Your task to perform on an android device: add a contact in the contacts app Image 0: 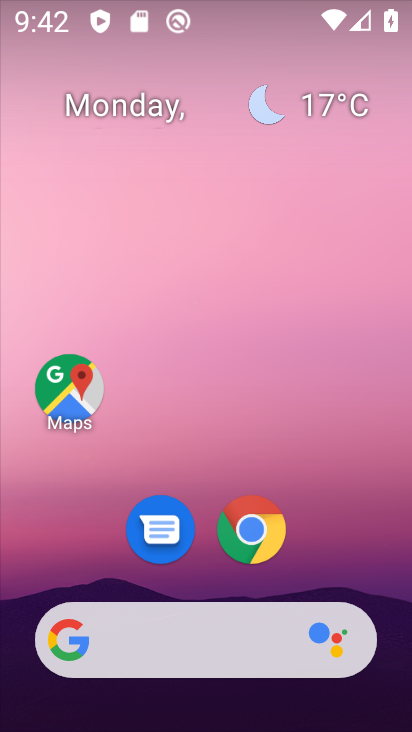
Step 0: drag from (361, 550) to (264, 9)
Your task to perform on an android device: add a contact in the contacts app Image 1: 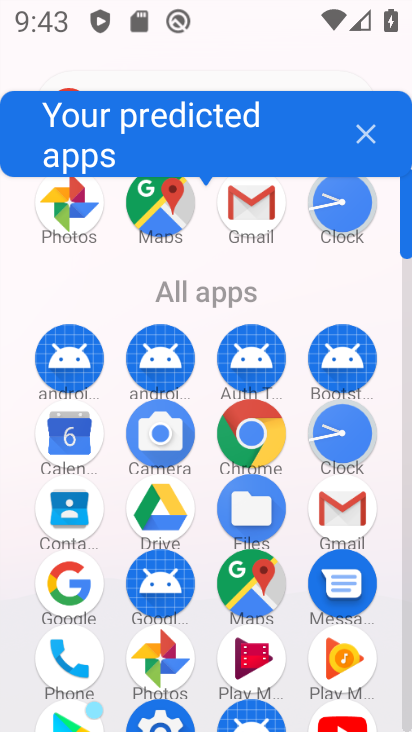
Step 1: click (83, 497)
Your task to perform on an android device: add a contact in the contacts app Image 2: 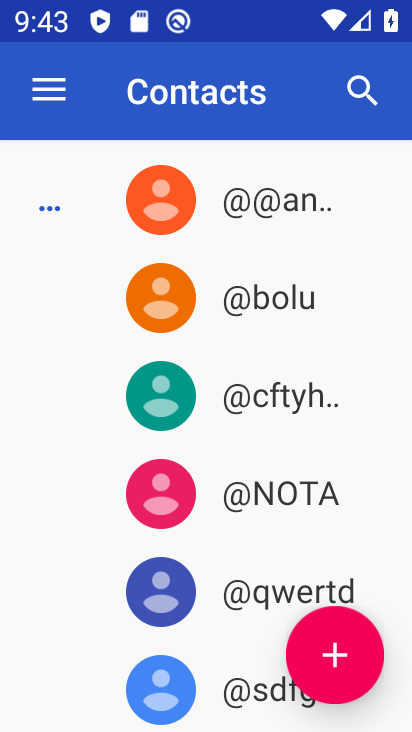
Step 2: click (338, 654)
Your task to perform on an android device: add a contact in the contacts app Image 3: 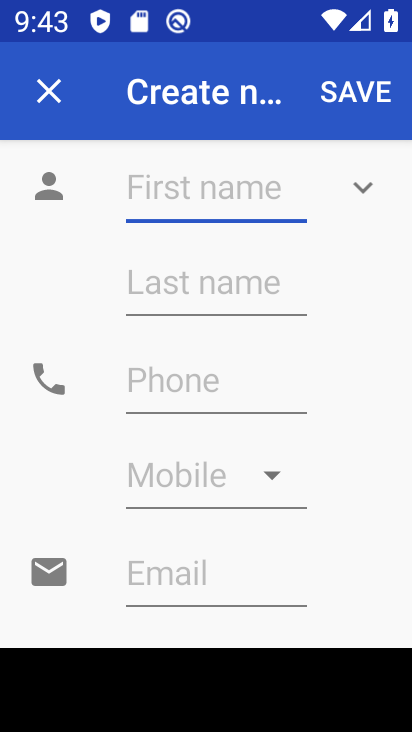
Step 3: type "mk"
Your task to perform on an android device: add a contact in the contacts app Image 4: 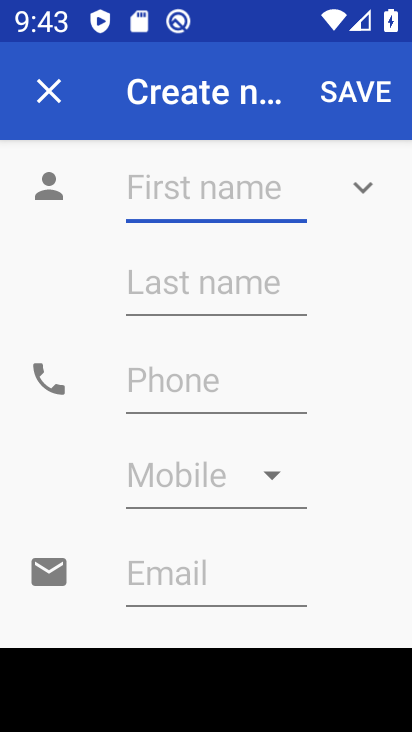
Step 4: click (218, 383)
Your task to perform on an android device: add a contact in the contacts app Image 5: 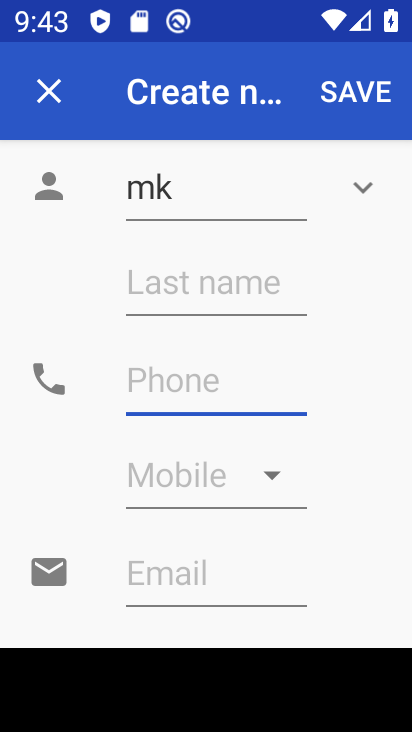
Step 5: type "9886554342"
Your task to perform on an android device: add a contact in the contacts app Image 6: 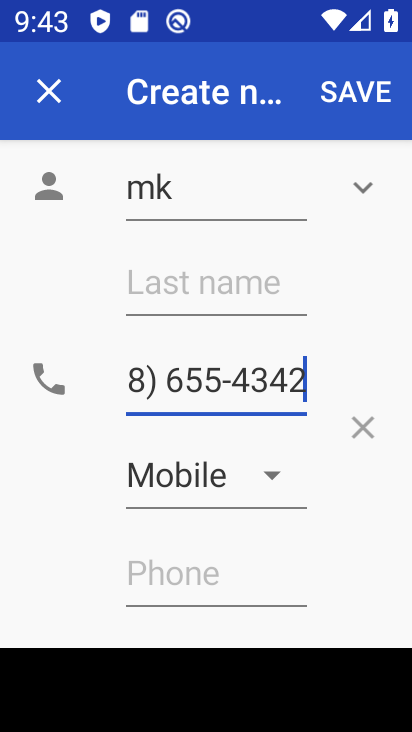
Step 6: click (382, 83)
Your task to perform on an android device: add a contact in the contacts app Image 7: 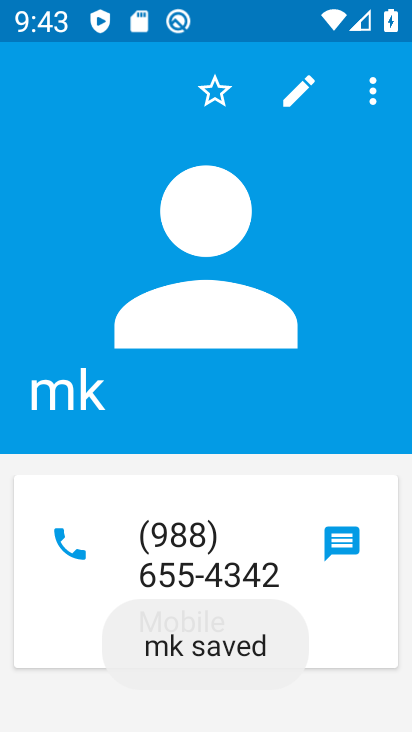
Step 7: task complete